Your task to perform on an android device: Go to network settings Image 0: 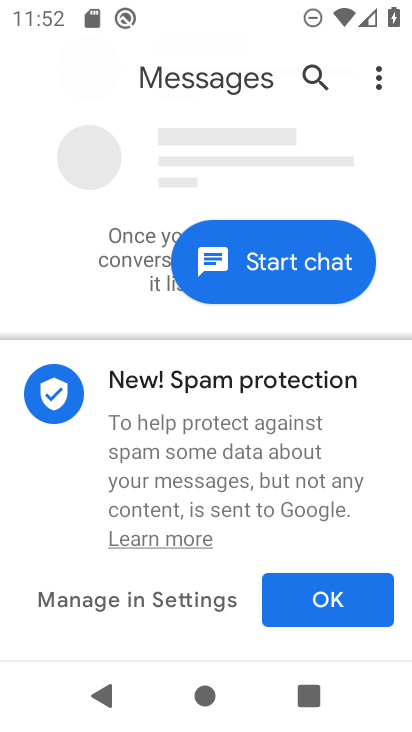
Step 0: press home button
Your task to perform on an android device: Go to network settings Image 1: 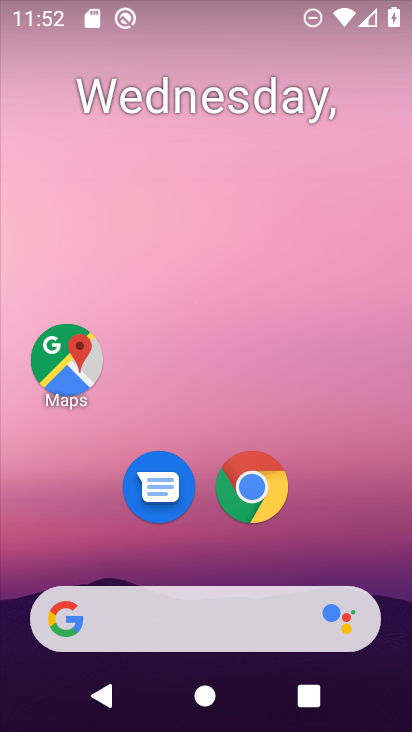
Step 1: drag from (312, 523) to (225, 100)
Your task to perform on an android device: Go to network settings Image 2: 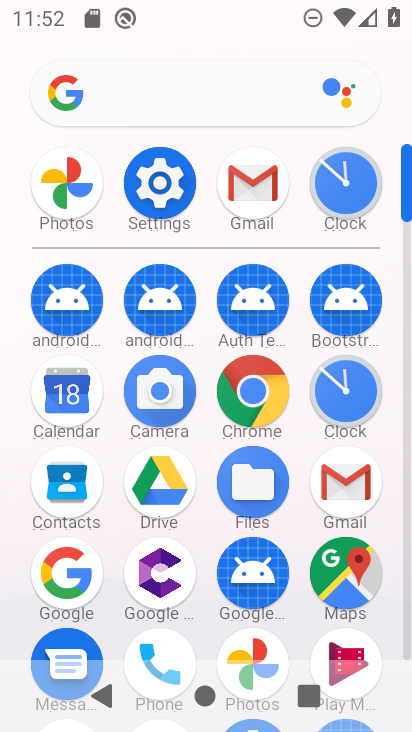
Step 2: click (164, 183)
Your task to perform on an android device: Go to network settings Image 3: 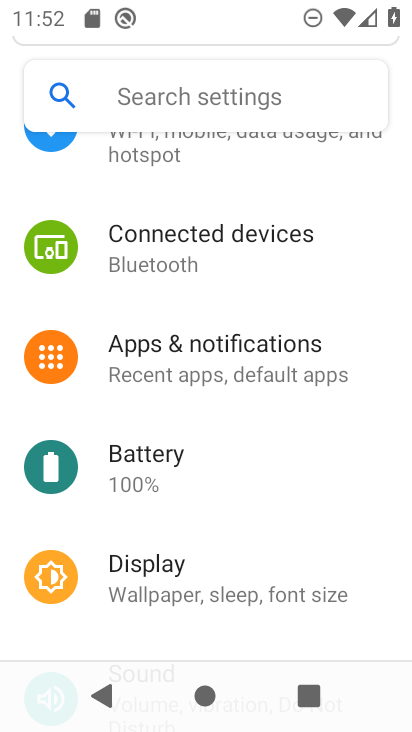
Step 3: drag from (224, 182) to (220, 730)
Your task to perform on an android device: Go to network settings Image 4: 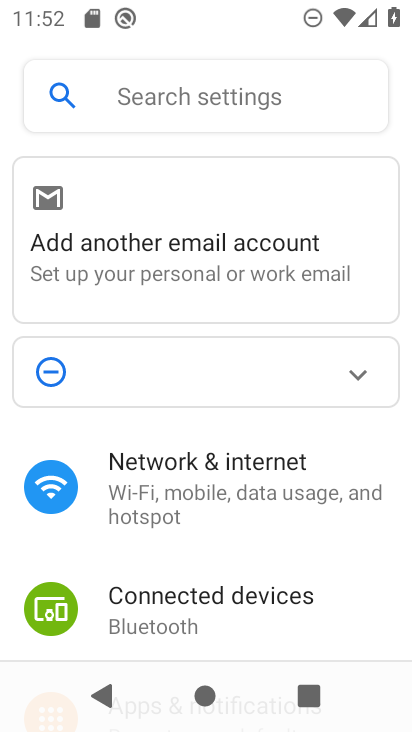
Step 4: click (176, 483)
Your task to perform on an android device: Go to network settings Image 5: 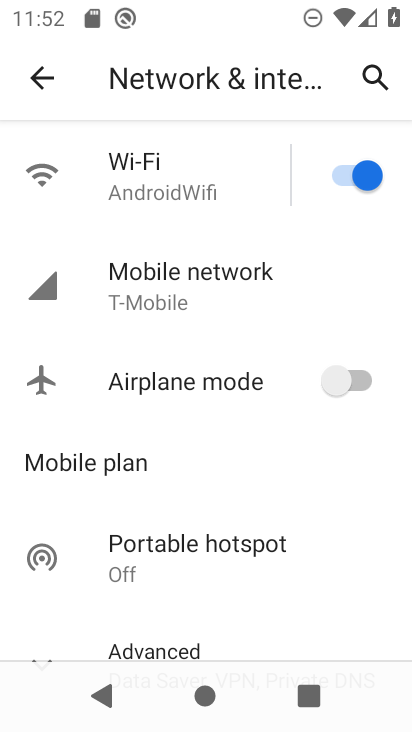
Step 5: task complete